Your task to perform on an android device: change notification settings in the gmail app Image 0: 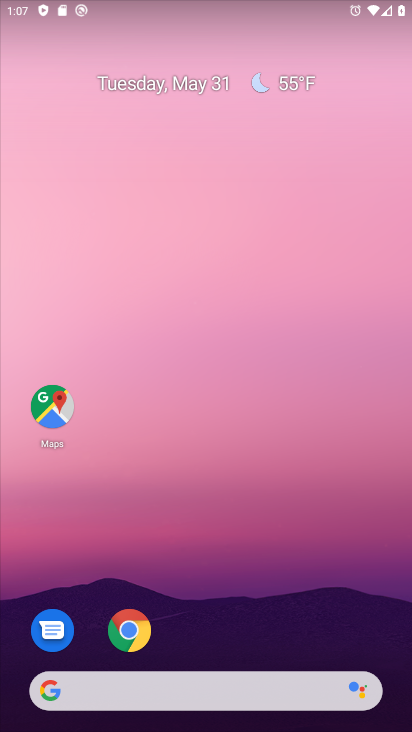
Step 0: drag from (168, 656) to (174, 242)
Your task to perform on an android device: change notification settings in the gmail app Image 1: 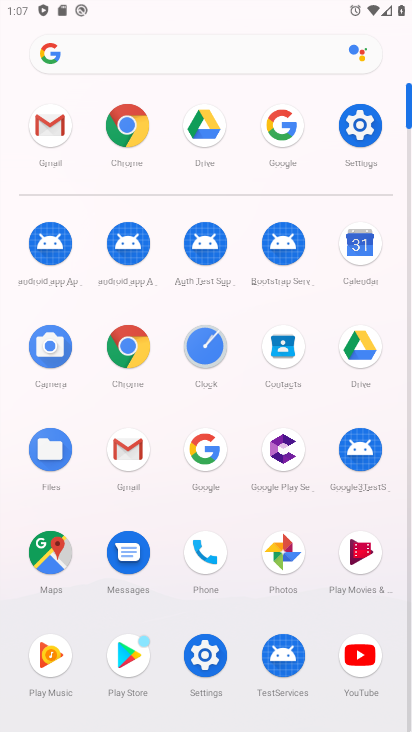
Step 1: click (127, 442)
Your task to perform on an android device: change notification settings in the gmail app Image 2: 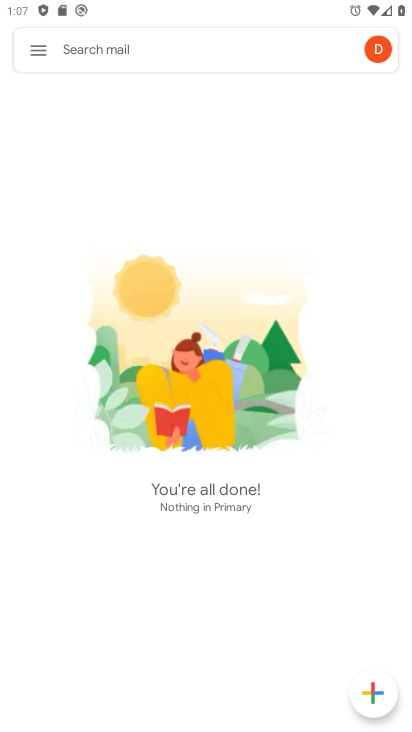
Step 2: click (40, 46)
Your task to perform on an android device: change notification settings in the gmail app Image 3: 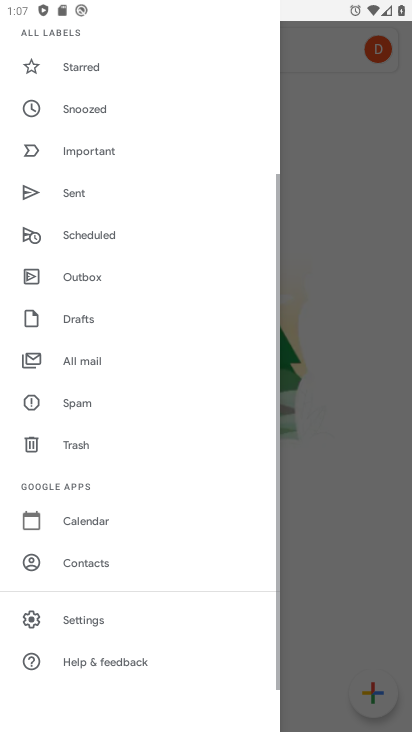
Step 3: click (88, 617)
Your task to perform on an android device: change notification settings in the gmail app Image 4: 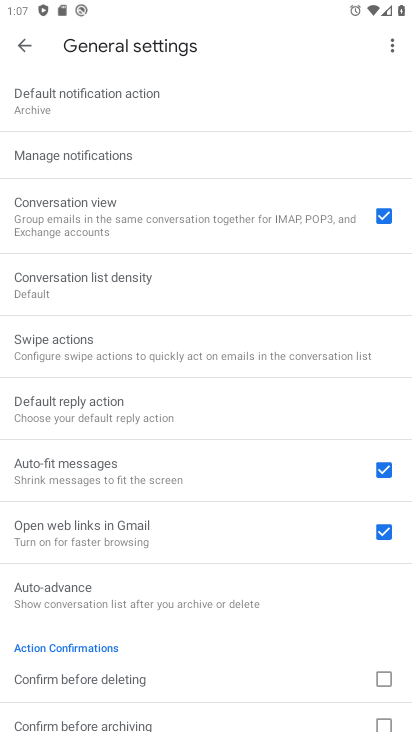
Step 4: click (23, 49)
Your task to perform on an android device: change notification settings in the gmail app Image 5: 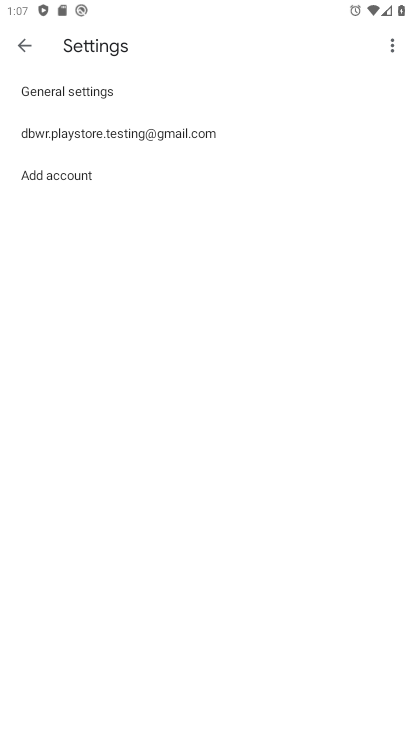
Step 5: click (65, 130)
Your task to perform on an android device: change notification settings in the gmail app Image 6: 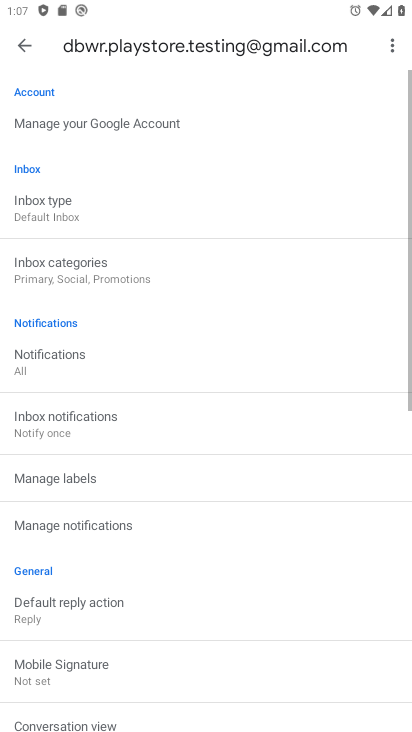
Step 6: click (63, 373)
Your task to perform on an android device: change notification settings in the gmail app Image 7: 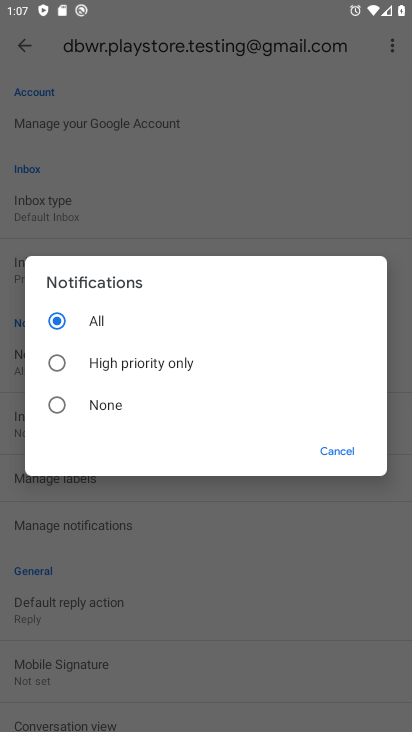
Step 7: click (121, 367)
Your task to perform on an android device: change notification settings in the gmail app Image 8: 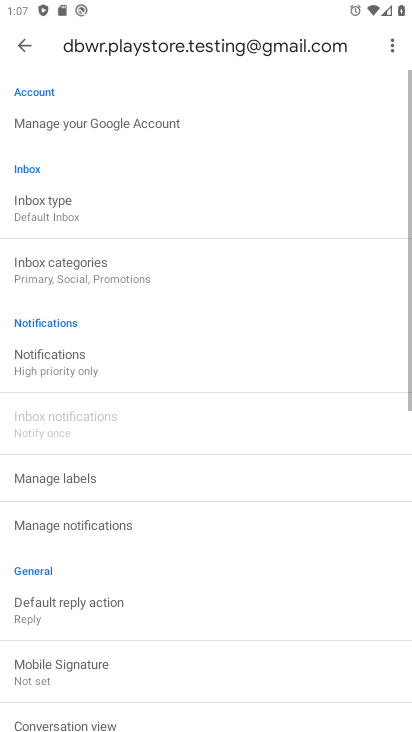
Step 8: task complete